Your task to perform on an android device: check out phone information Image 0: 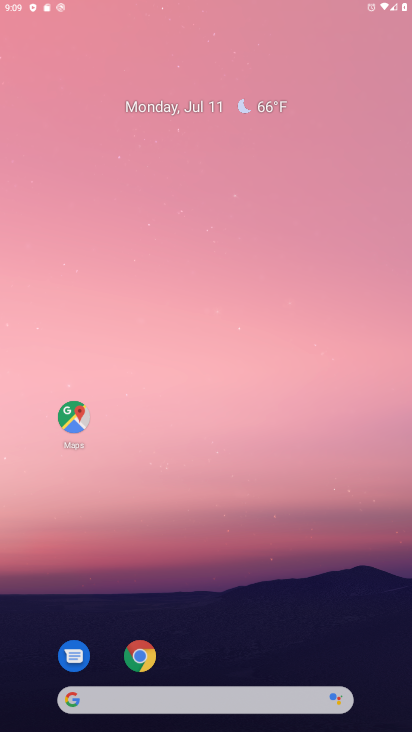
Step 0: drag from (340, 647) to (341, 229)
Your task to perform on an android device: check out phone information Image 1: 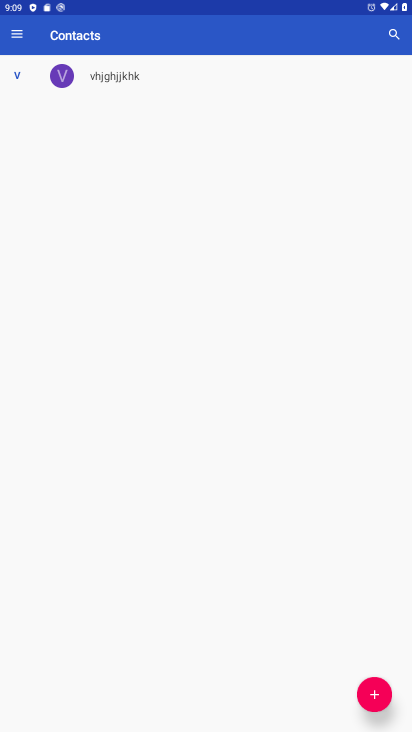
Step 1: press home button
Your task to perform on an android device: check out phone information Image 2: 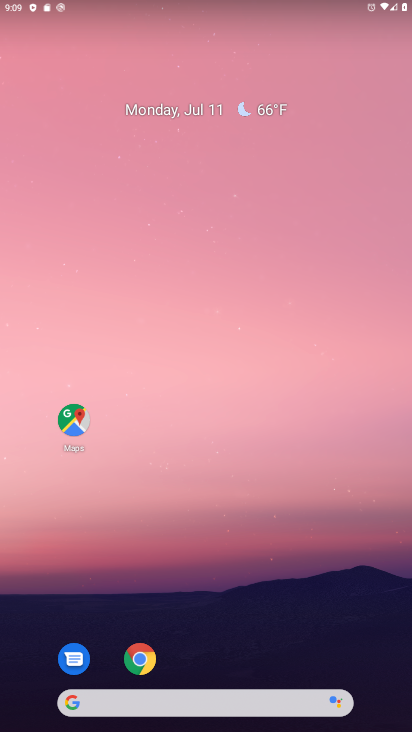
Step 2: drag from (367, 632) to (369, 152)
Your task to perform on an android device: check out phone information Image 3: 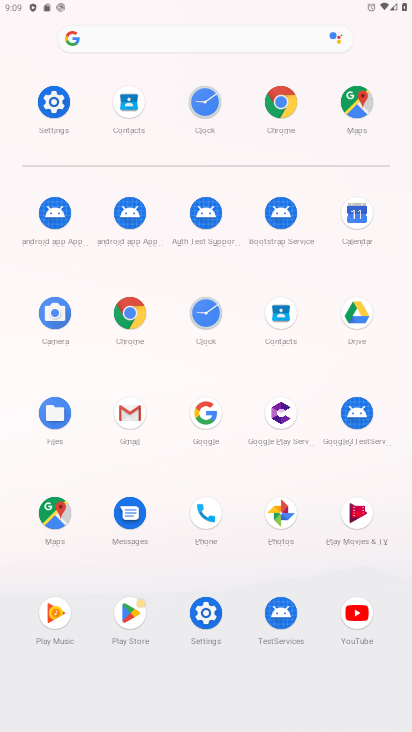
Step 3: click (208, 509)
Your task to perform on an android device: check out phone information Image 4: 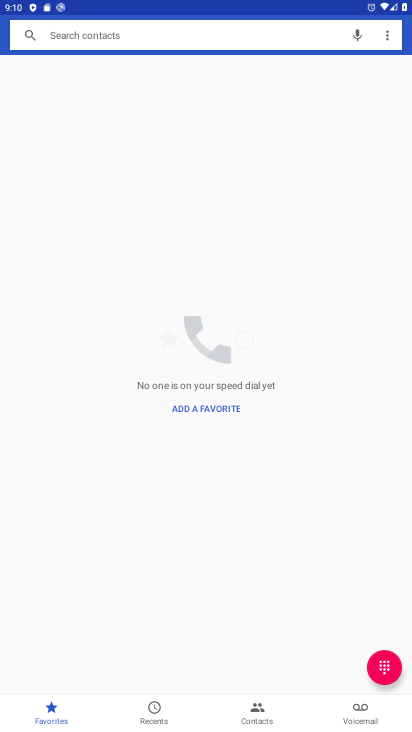
Step 4: task complete